Your task to perform on an android device: Open the stopwatch Image 0: 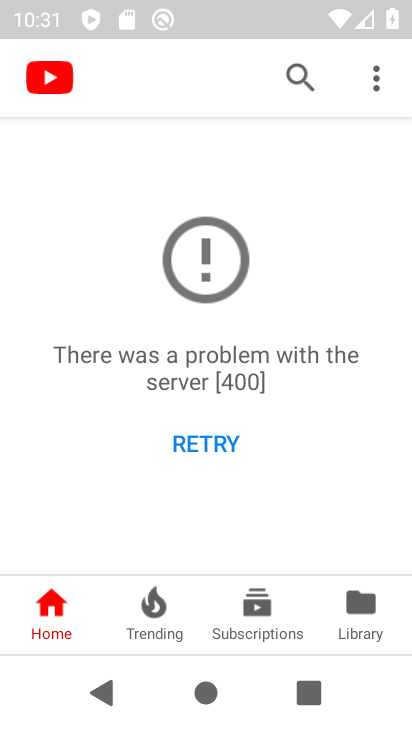
Step 0: press home button
Your task to perform on an android device: Open the stopwatch Image 1: 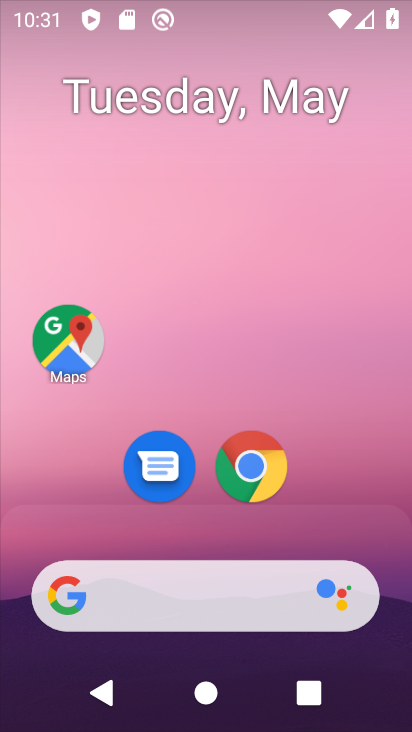
Step 1: drag from (216, 425) to (260, 93)
Your task to perform on an android device: Open the stopwatch Image 2: 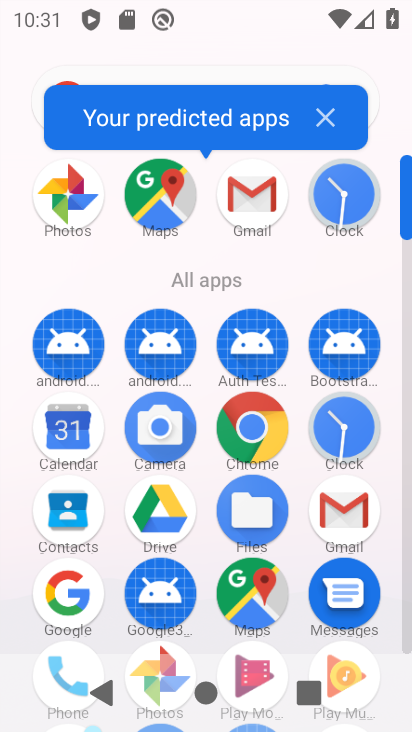
Step 2: click (360, 182)
Your task to perform on an android device: Open the stopwatch Image 3: 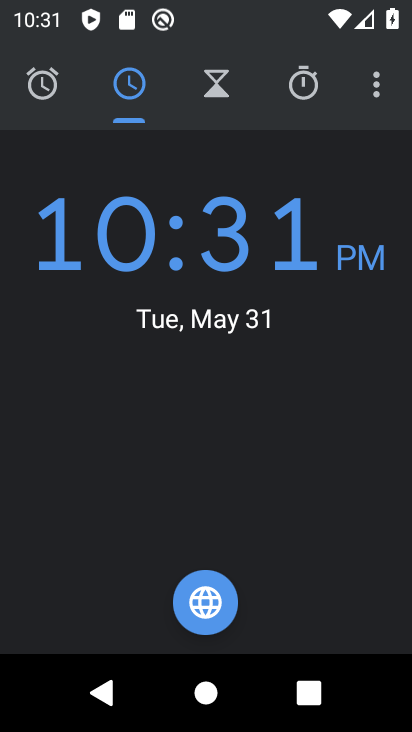
Step 3: click (315, 105)
Your task to perform on an android device: Open the stopwatch Image 4: 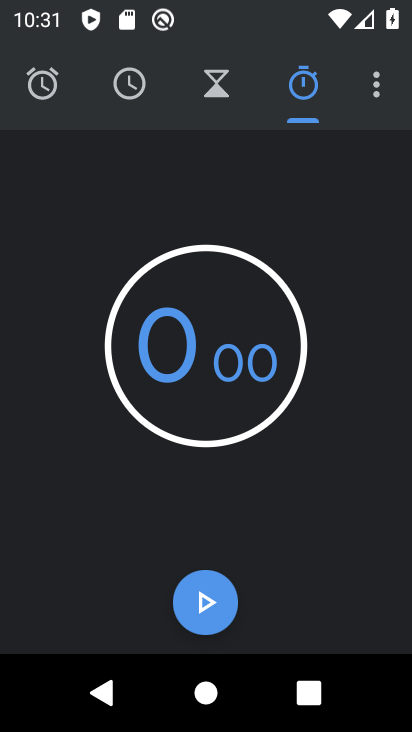
Step 4: task complete